Your task to perform on an android device: Show me the alarms in the clock app Image 0: 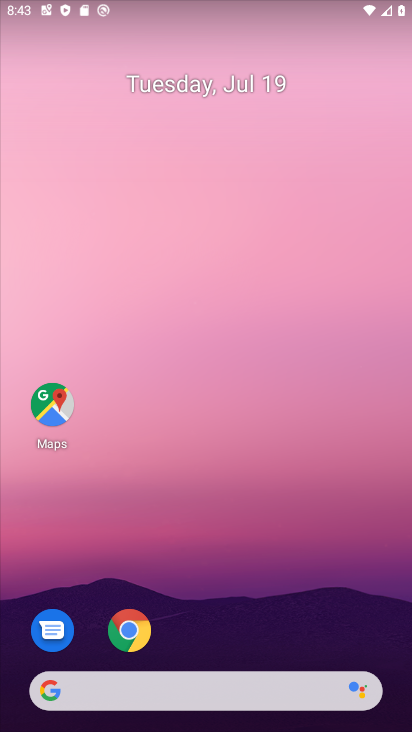
Step 0: drag from (221, 641) to (303, 160)
Your task to perform on an android device: Show me the alarms in the clock app Image 1: 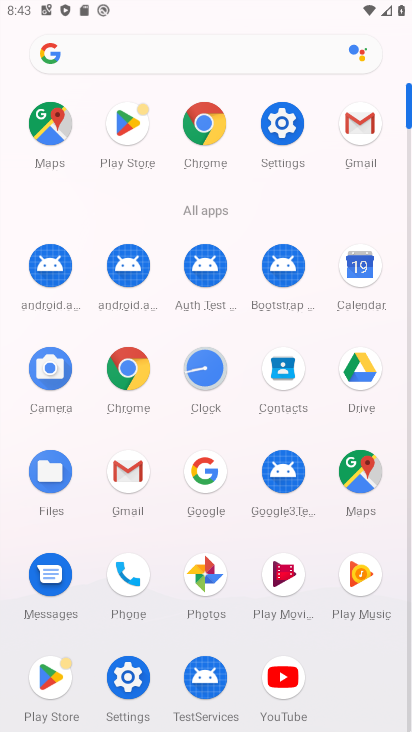
Step 1: click (211, 365)
Your task to perform on an android device: Show me the alarms in the clock app Image 2: 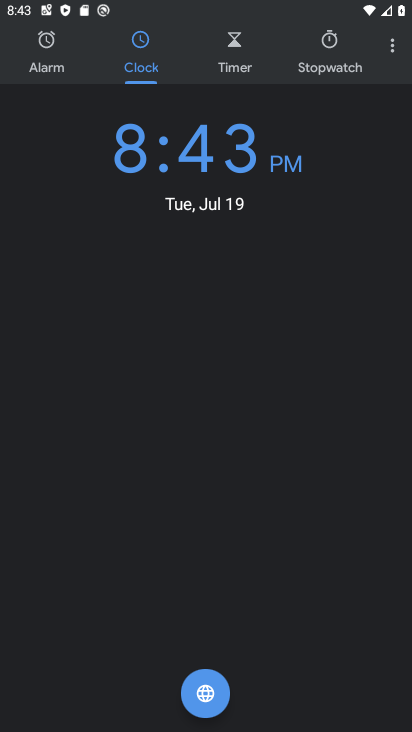
Step 2: click (51, 57)
Your task to perform on an android device: Show me the alarms in the clock app Image 3: 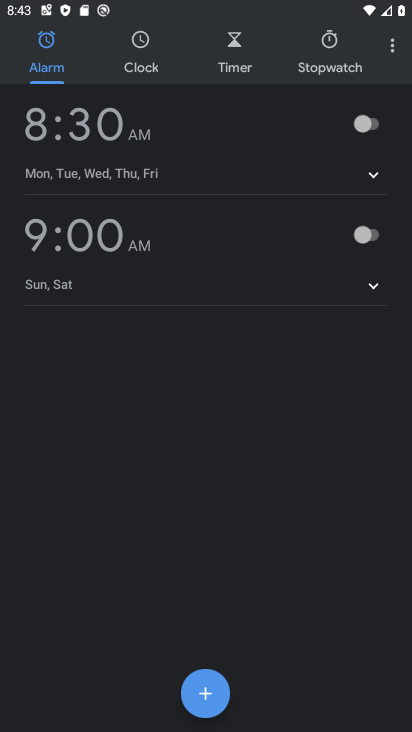
Step 3: task complete